Your task to perform on an android device: Is it going to rain this weekend? Image 0: 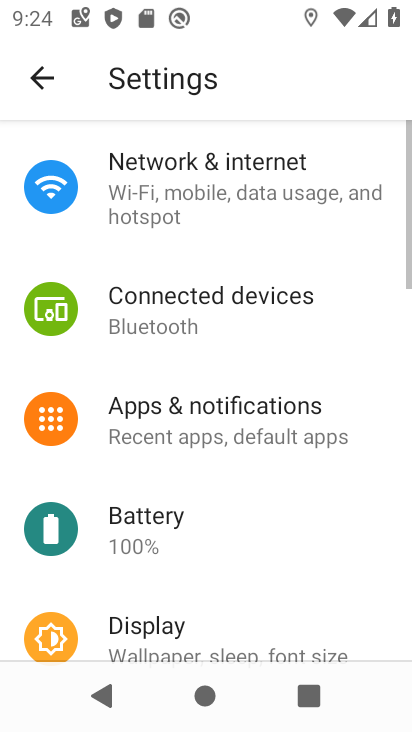
Step 0: press home button
Your task to perform on an android device: Is it going to rain this weekend? Image 1: 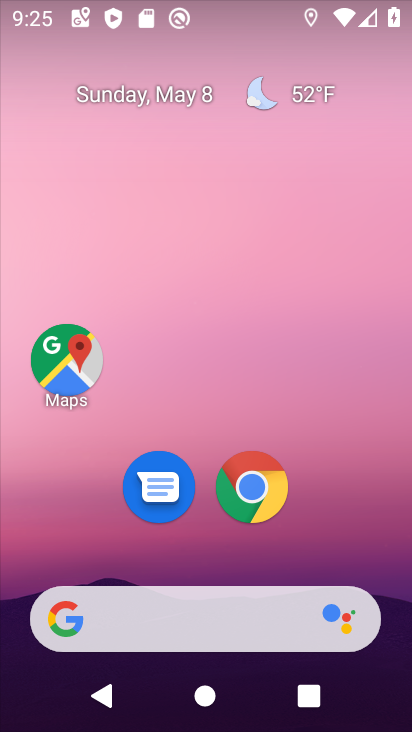
Step 1: click (191, 613)
Your task to perform on an android device: Is it going to rain this weekend? Image 2: 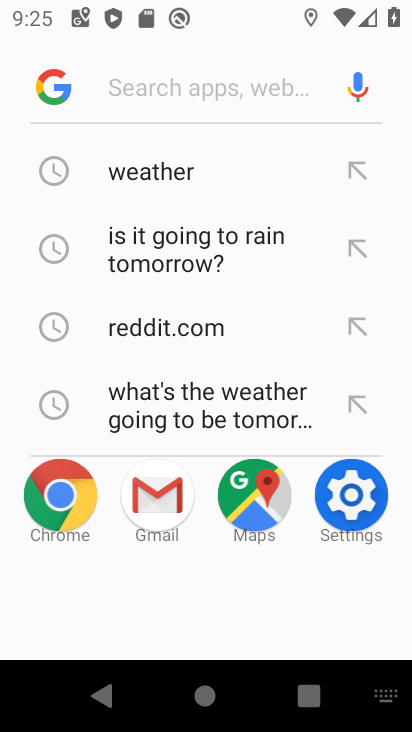
Step 2: click (368, 252)
Your task to perform on an android device: Is it going to rain this weekend? Image 3: 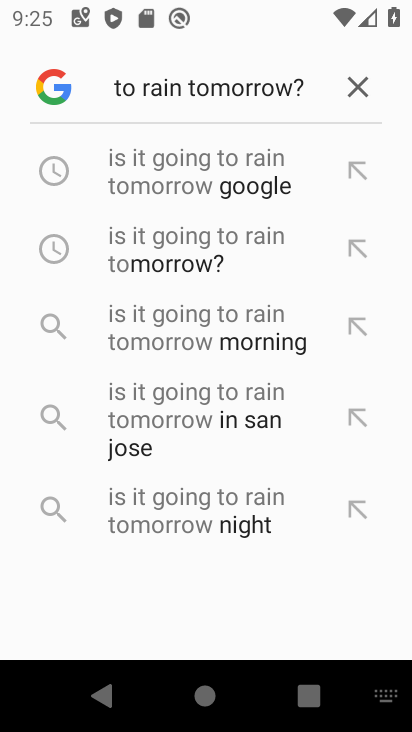
Step 3: click (350, 89)
Your task to perform on an android device: Is it going to rain this weekend? Image 4: 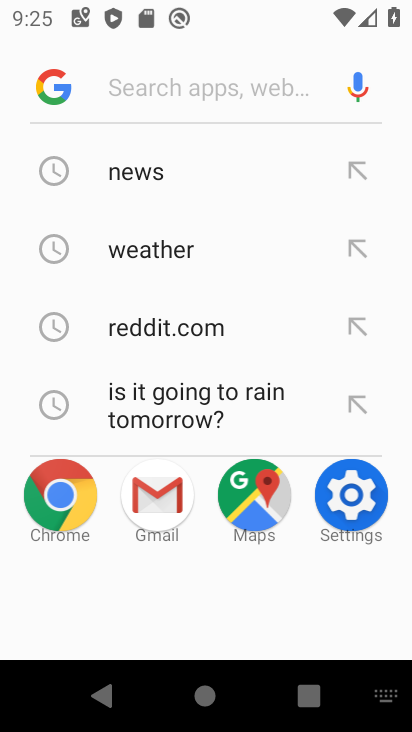
Step 4: type "is it going to rain this weekened?"
Your task to perform on an android device: Is it going to rain this weekend? Image 5: 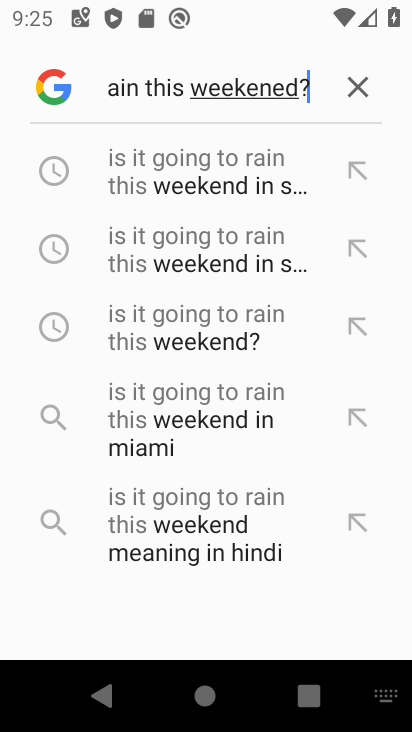
Step 5: click (186, 351)
Your task to perform on an android device: Is it going to rain this weekend? Image 6: 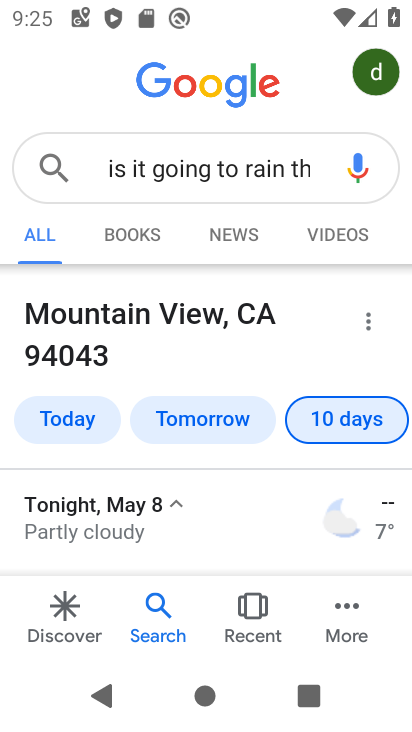
Step 6: task complete